Your task to perform on an android device: Go to Google maps Image 0: 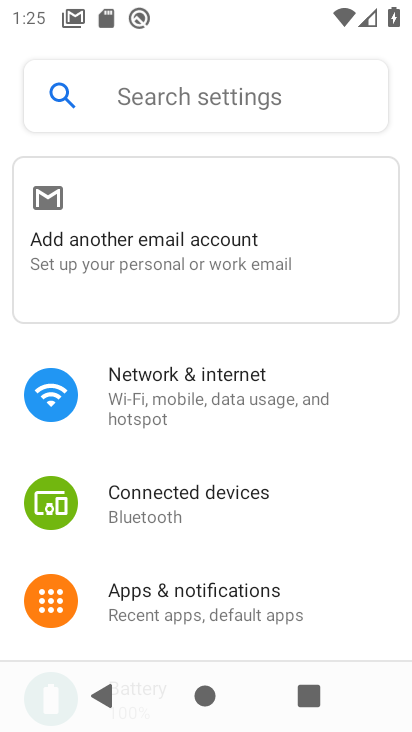
Step 0: press home button
Your task to perform on an android device: Go to Google maps Image 1: 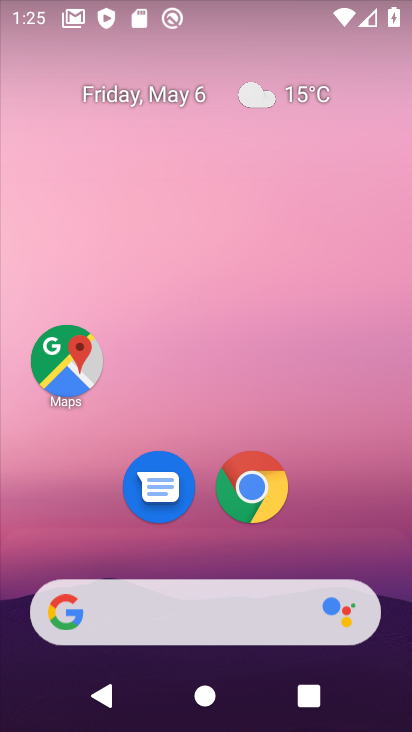
Step 1: click (63, 369)
Your task to perform on an android device: Go to Google maps Image 2: 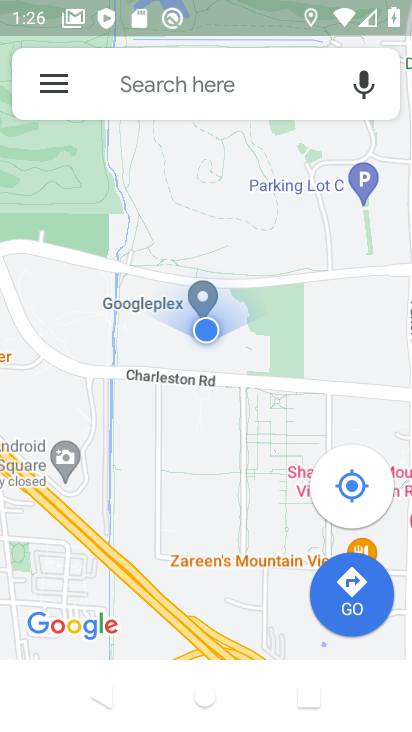
Step 2: task complete